Your task to perform on an android device: delete a single message in the gmail app Image 0: 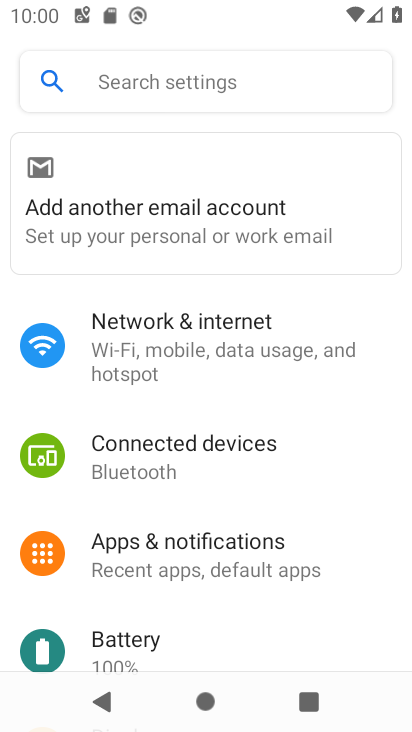
Step 0: press home button
Your task to perform on an android device: delete a single message in the gmail app Image 1: 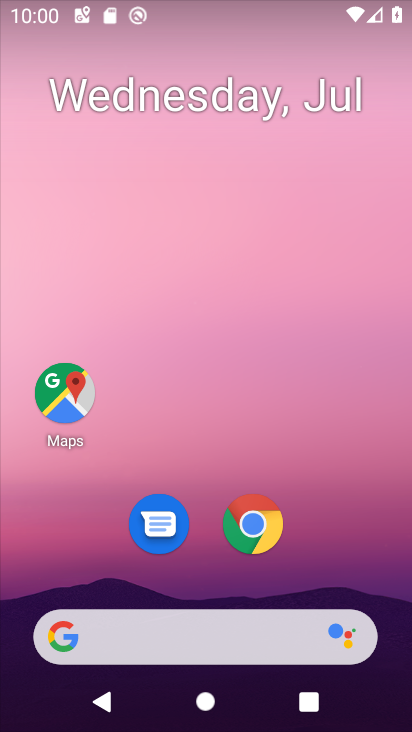
Step 1: drag from (341, 521) to (360, 63)
Your task to perform on an android device: delete a single message in the gmail app Image 2: 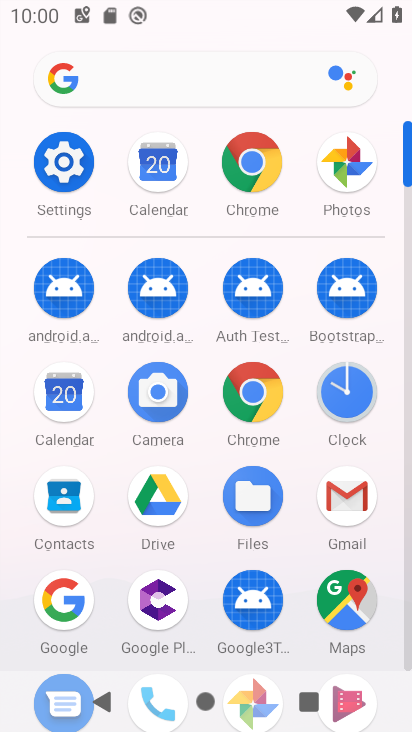
Step 2: click (349, 491)
Your task to perform on an android device: delete a single message in the gmail app Image 3: 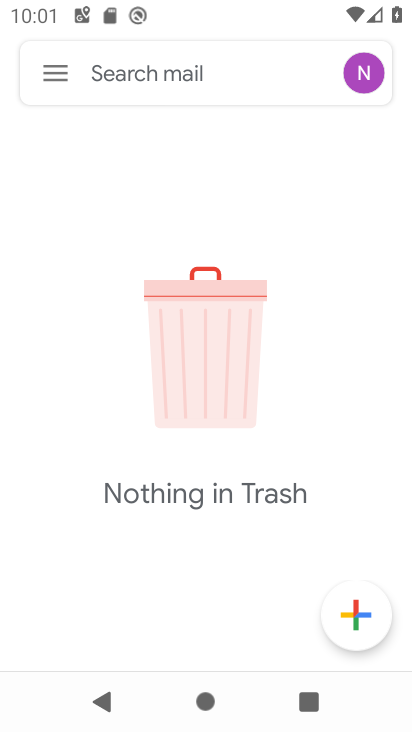
Step 3: click (60, 72)
Your task to perform on an android device: delete a single message in the gmail app Image 4: 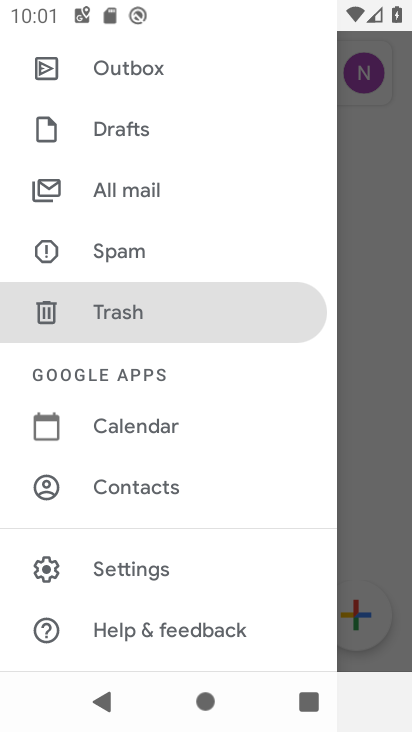
Step 4: click (124, 180)
Your task to perform on an android device: delete a single message in the gmail app Image 5: 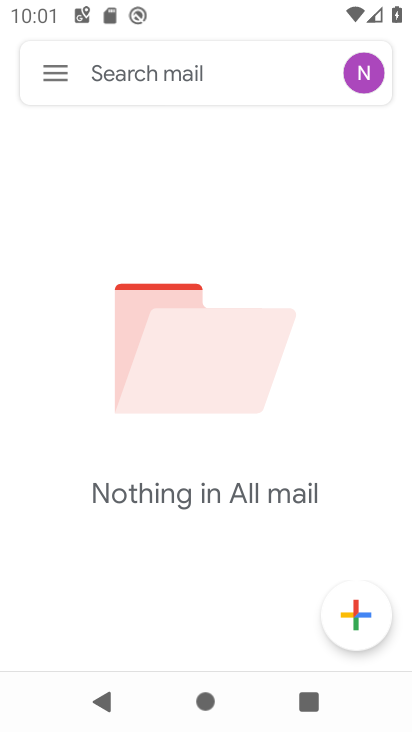
Step 5: task complete